Your task to perform on an android device: Do I have any events this weekend? Image 0: 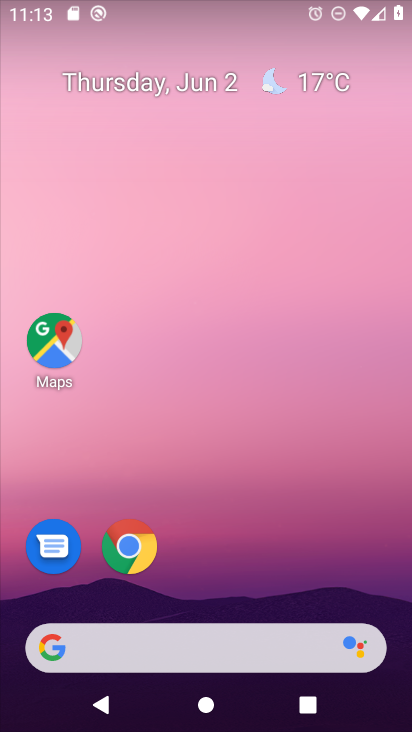
Step 0: drag from (286, 500) to (222, 39)
Your task to perform on an android device: Do I have any events this weekend? Image 1: 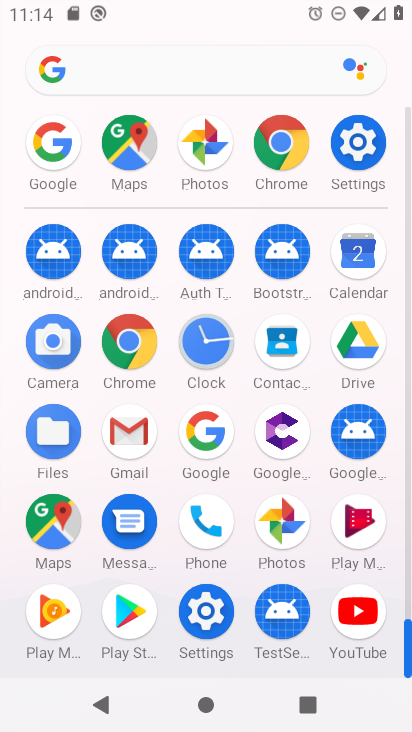
Step 1: click (355, 245)
Your task to perform on an android device: Do I have any events this weekend? Image 2: 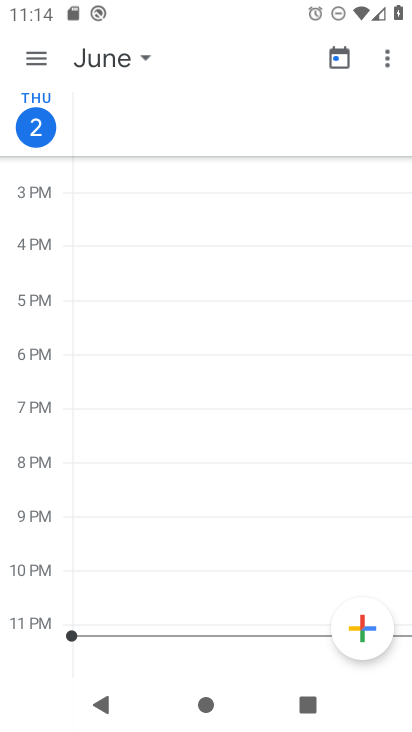
Step 2: click (29, 59)
Your task to perform on an android device: Do I have any events this weekend? Image 3: 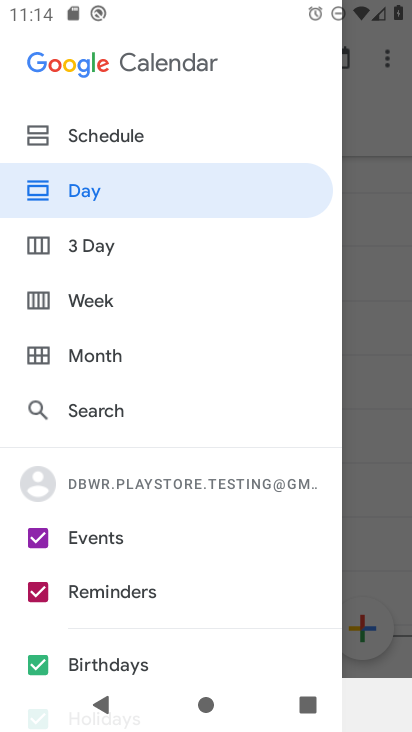
Step 3: click (76, 282)
Your task to perform on an android device: Do I have any events this weekend? Image 4: 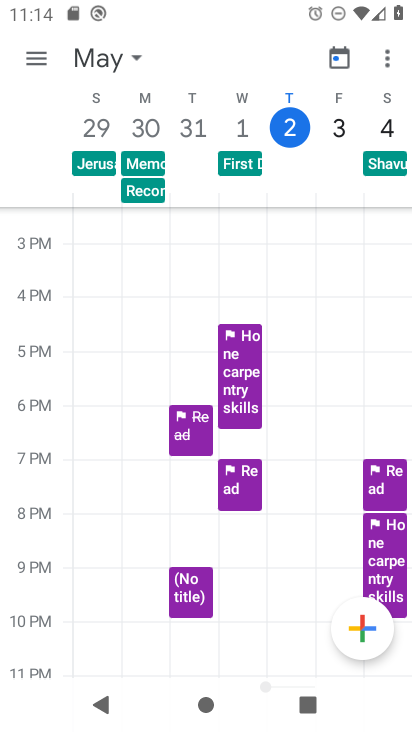
Step 4: task complete